Your task to perform on an android device: turn on sleep mode Image 0: 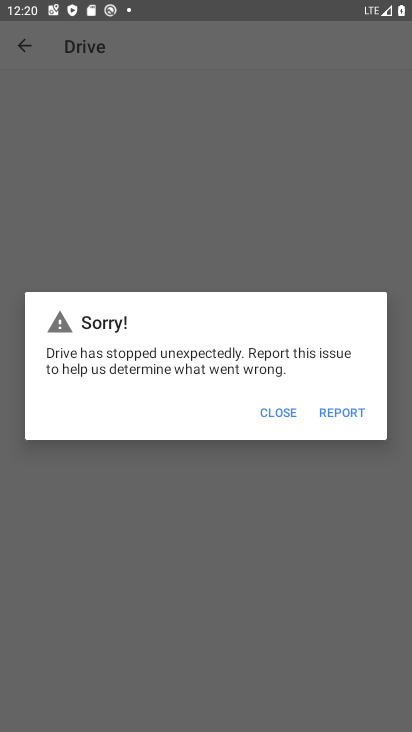
Step 0: press home button
Your task to perform on an android device: turn on sleep mode Image 1: 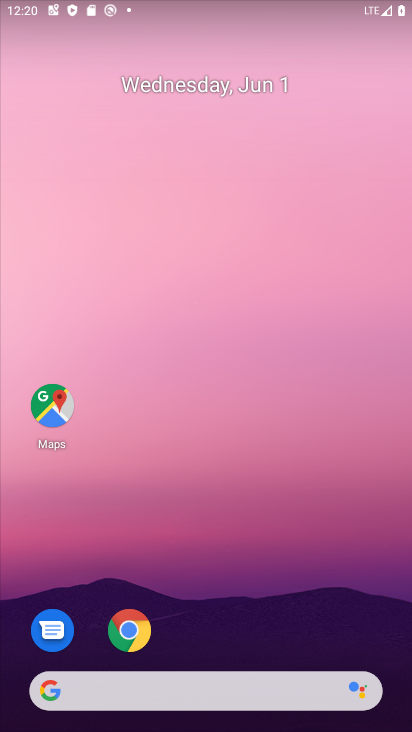
Step 1: drag from (264, 625) to (318, 69)
Your task to perform on an android device: turn on sleep mode Image 2: 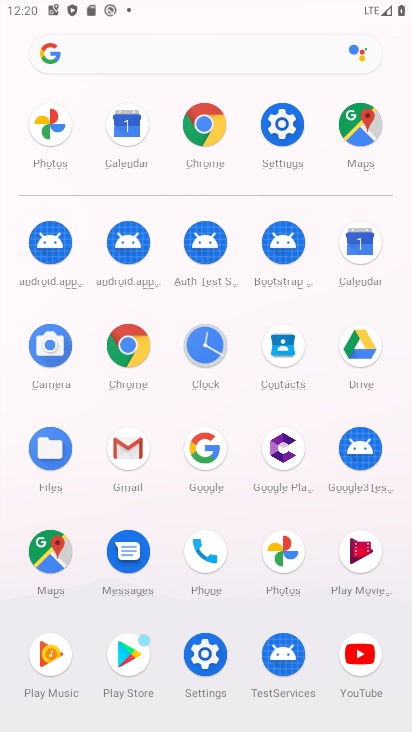
Step 2: click (291, 116)
Your task to perform on an android device: turn on sleep mode Image 3: 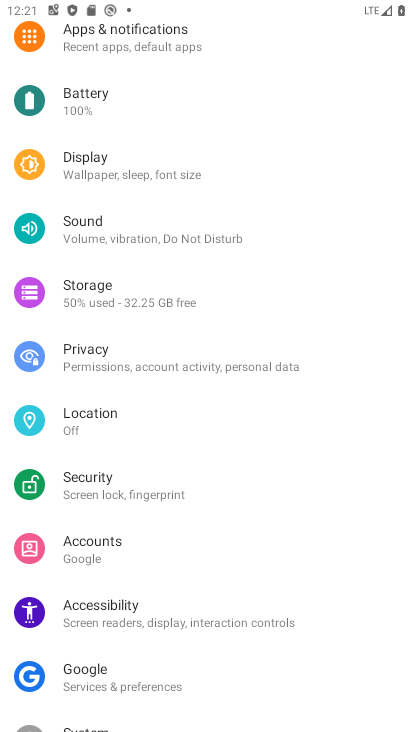
Step 3: click (126, 161)
Your task to perform on an android device: turn on sleep mode Image 4: 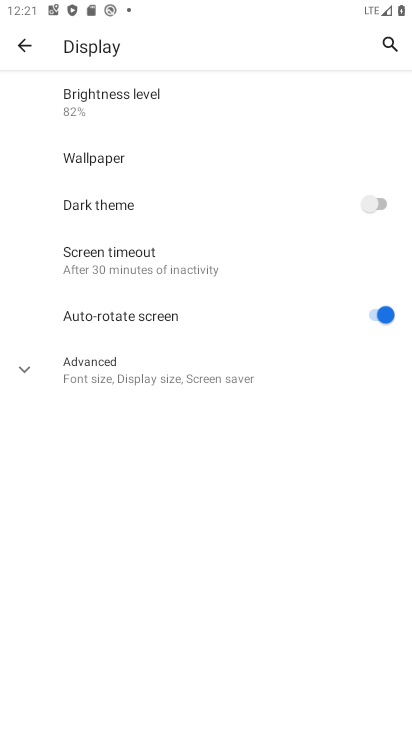
Step 4: click (18, 371)
Your task to perform on an android device: turn on sleep mode Image 5: 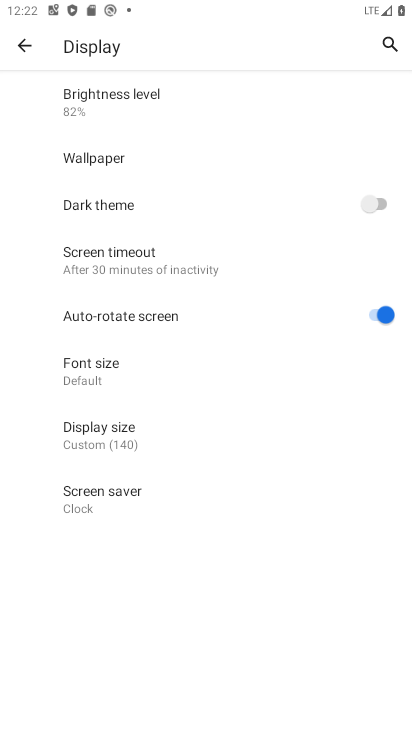
Step 5: task complete